Your task to perform on an android device: change the clock style Image 0: 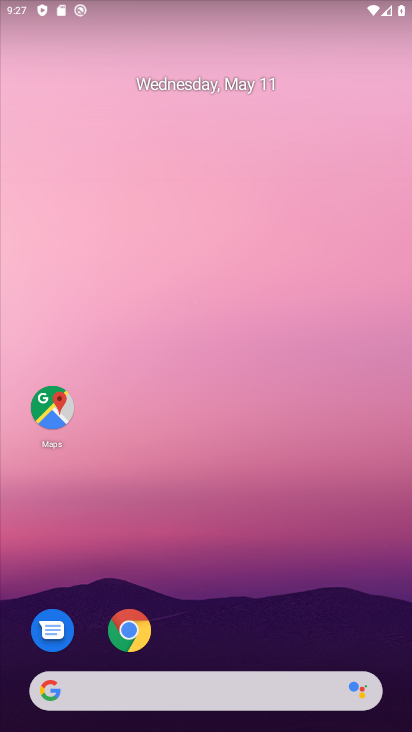
Step 0: drag from (300, 600) to (376, 68)
Your task to perform on an android device: change the clock style Image 1: 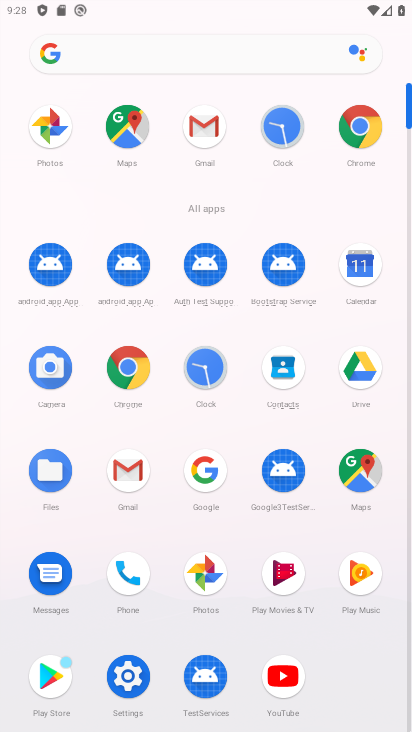
Step 1: click (284, 127)
Your task to perform on an android device: change the clock style Image 2: 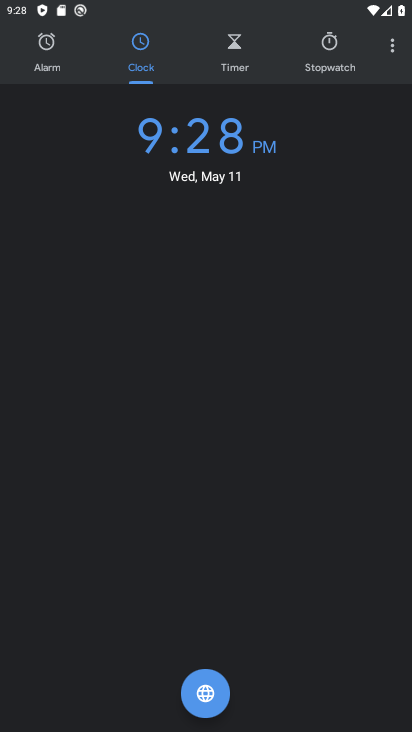
Step 2: click (394, 39)
Your task to perform on an android device: change the clock style Image 3: 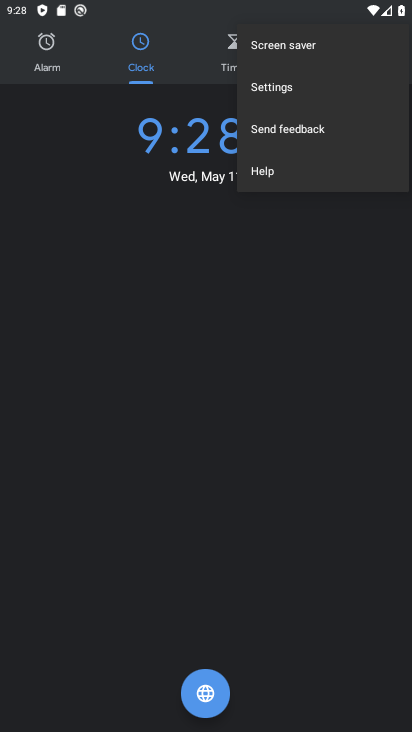
Step 3: click (276, 92)
Your task to perform on an android device: change the clock style Image 4: 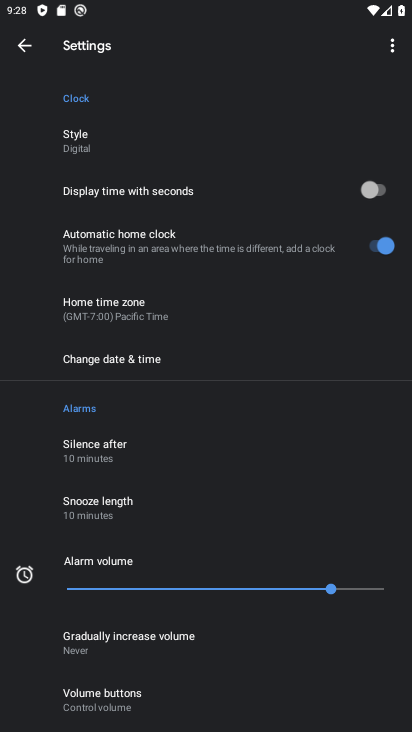
Step 4: click (90, 139)
Your task to perform on an android device: change the clock style Image 5: 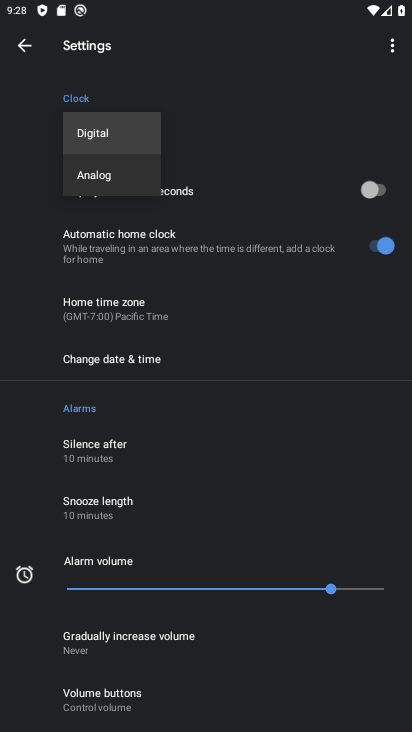
Step 5: click (108, 176)
Your task to perform on an android device: change the clock style Image 6: 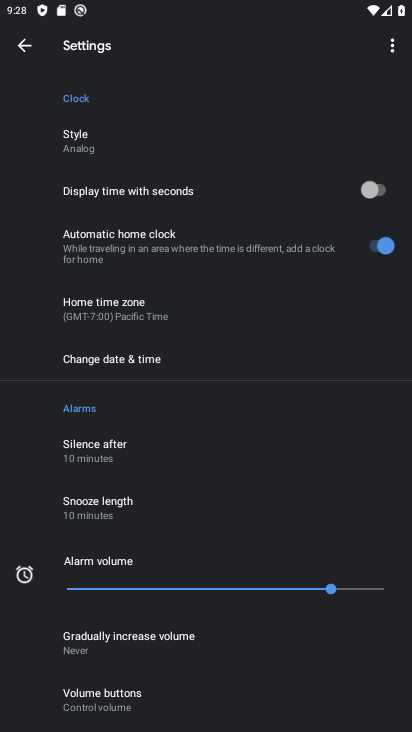
Step 6: task complete